Your task to perform on an android device: Open Google Maps Image 0: 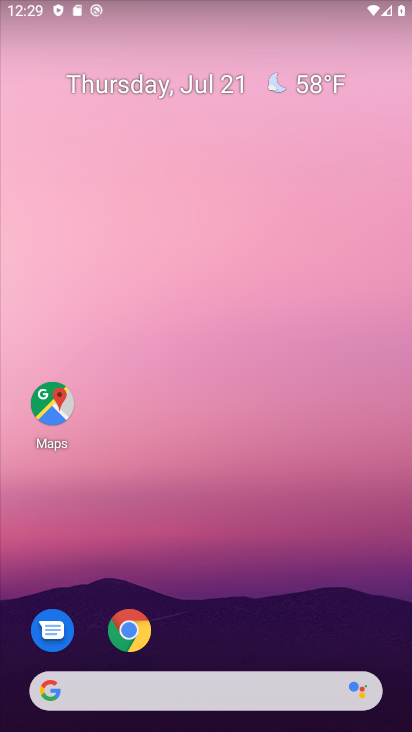
Step 0: click (57, 409)
Your task to perform on an android device: Open Google Maps Image 1: 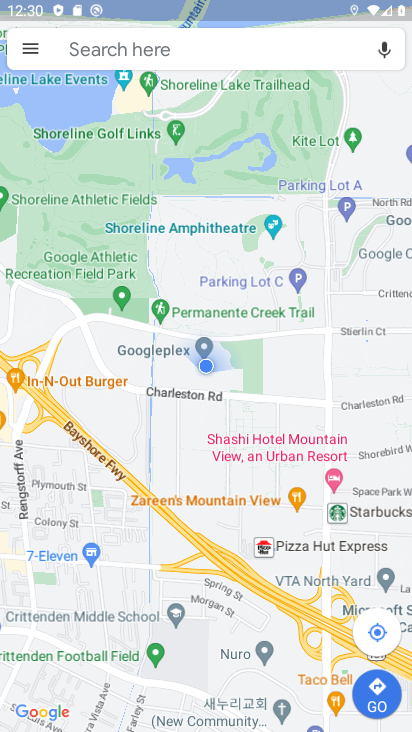
Step 1: task complete